Your task to perform on an android device: install app "Microsoft Outlook" Image 0: 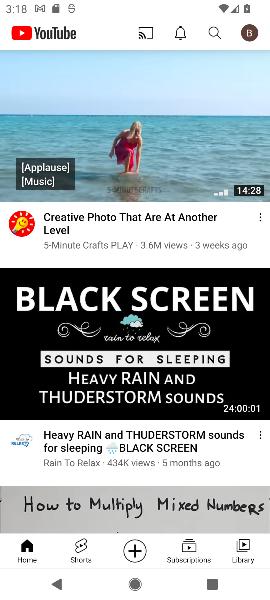
Step 0: press home button
Your task to perform on an android device: install app "Microsoft Outlook" Image 1: 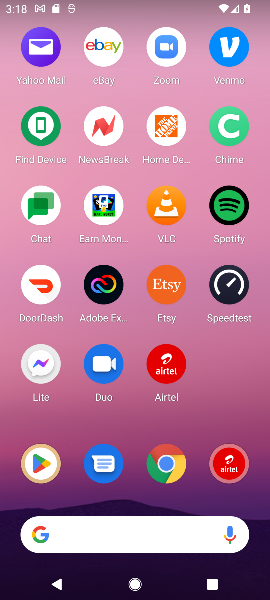
Step 1: press home button
Your task to perform on an android device: install app "Microsoft Outlook" Image 2: 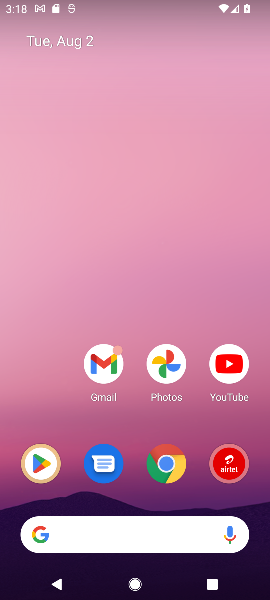
Step 2: click (40, 454)
Your task to perform on an android device: install app "Microsoft Outlook" Image 3: 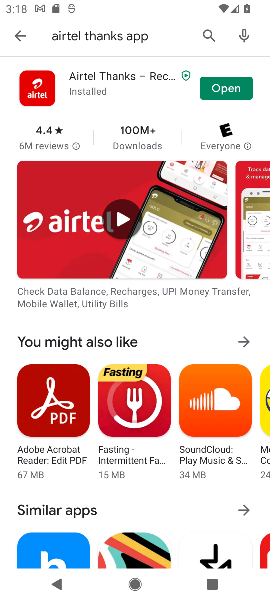
Step 3: click (203, 31)
Your task to perform on an android device: install app "Microsoft Outlook" Image 4: 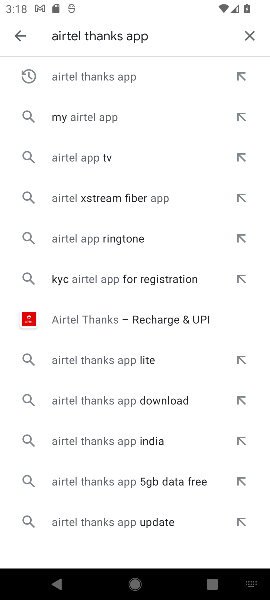
Step 4: click (249, 31)
Your task to perform on an android device: install app "Microsoft Outlook" Image 5: 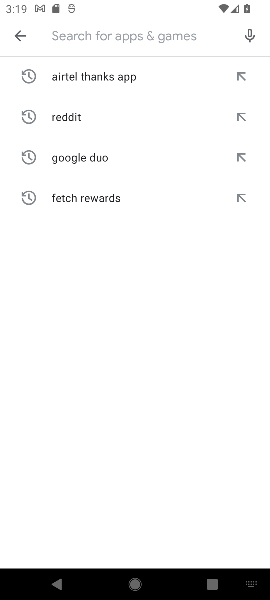
Step 5: type "Microsoft Outlook"
Your task to perform on an android device: install app "Microsoft Outlook" Image 6: 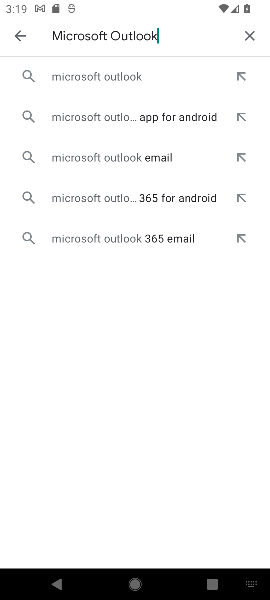
Step 6: click (128, 75)
Your task to perform on an android device: install app "Microsoft Outlook" Image 7: 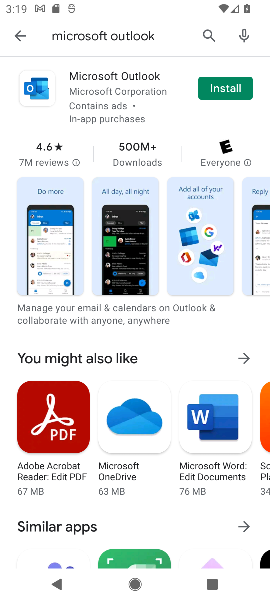
Step 7: click (215, 88)
Your task to perform on an android device: install app "Microsoft Outlook" Image 8: 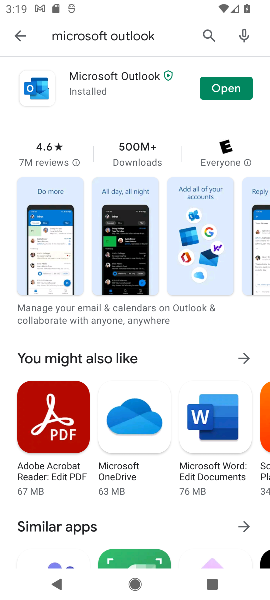
Step 8: task complete